Your task to perform on an android device: Go to CNN.com Image 0: 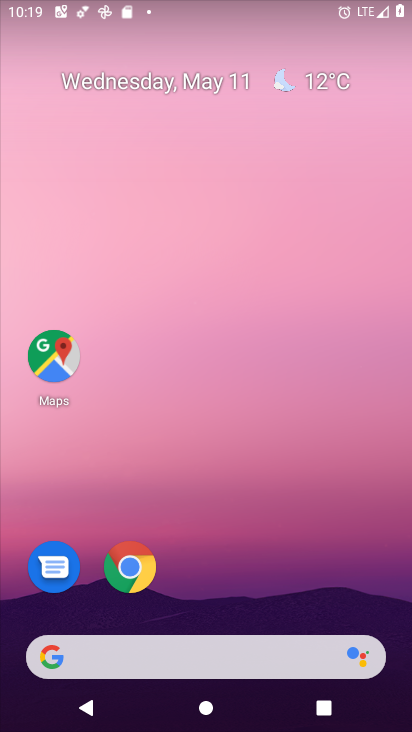
Step 0: click (141, 574)
Your task to perform on an android device: Go to CNN.com Image 1: 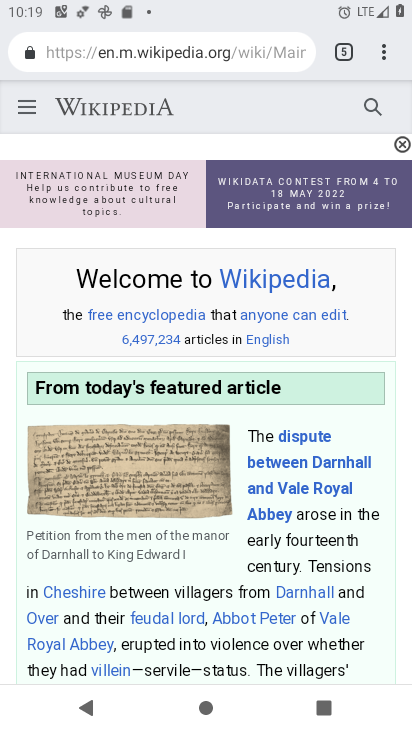
Step 1: click (339, 53)
Your task to perform on an android device: Go to CNN.com Image 2: 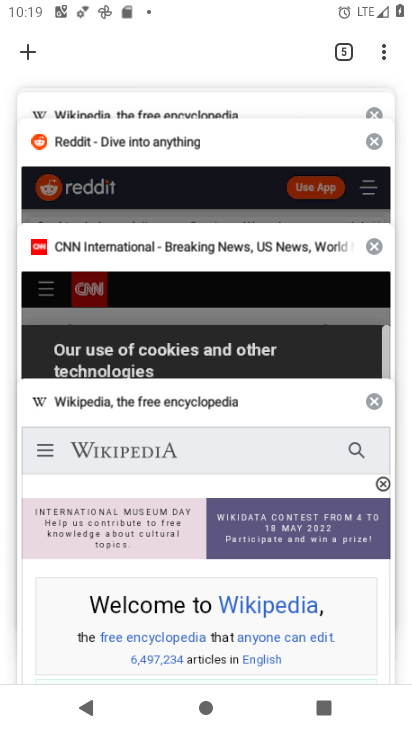
Step 2: click (103, 234)
Your task to perform on an android device: Go to CNN.com Image 3: 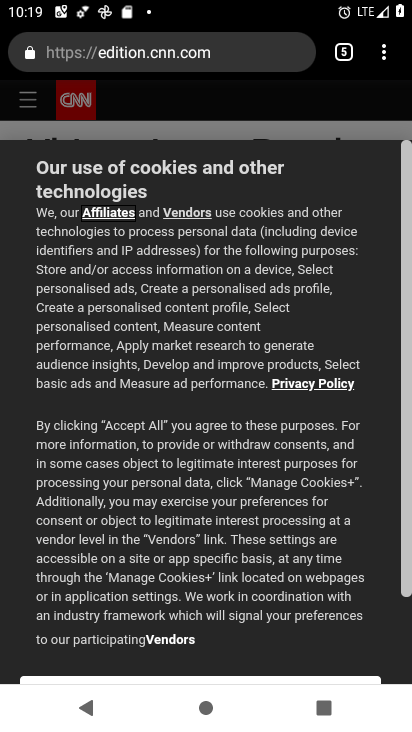
Step 3: task complete